Your task to perform on an android device: find snoozed emails in the gmail app Image 0: 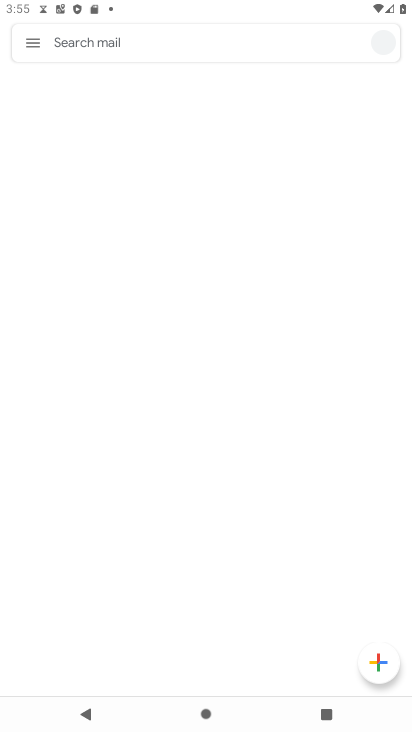
Step 0: drag from (189, 660) to (182, 622)
Your task to perform on an android device: find snoozed emails in the gmail app Image 1: 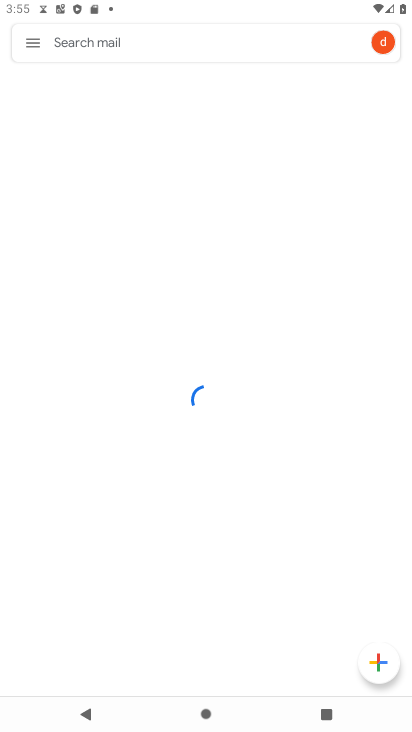
Step 1: press home button
Your task to perform on an android device: find snoozed emails in the gmail app Image 2: 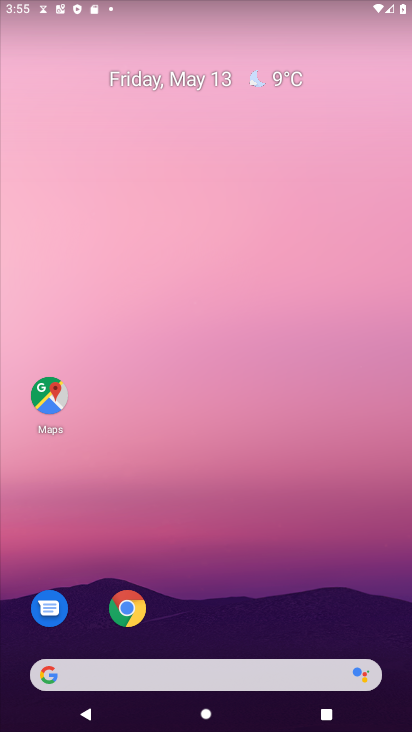
Step 2: drag from (178, 653) to (226, 253)
Your task to perform on an android device: find snoozed emails in the gmail app Image 3: 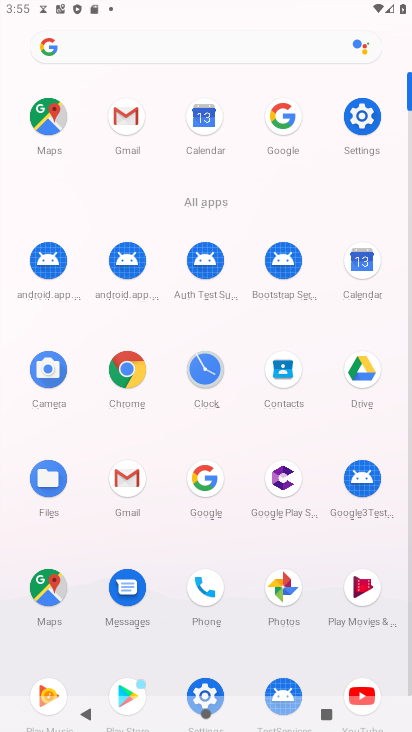
Step 3: click (115, 480)
Your task to perform on an android device: find snoozed emails in the gmail app Image 4: 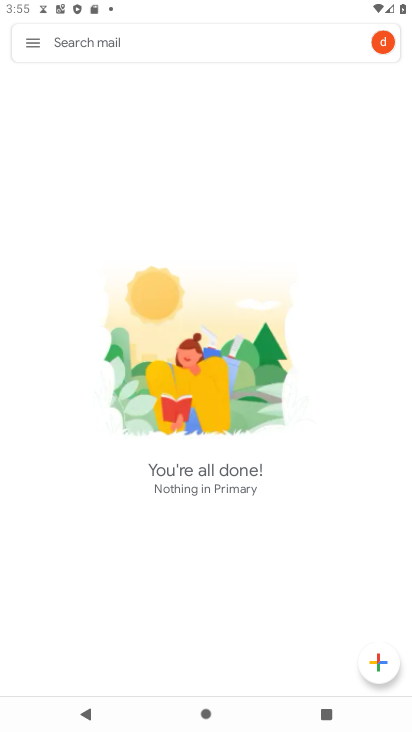
Step 4: click (43, 43)
Your task to perform on an android device: find snoozed emails in the gmail app Image 5: 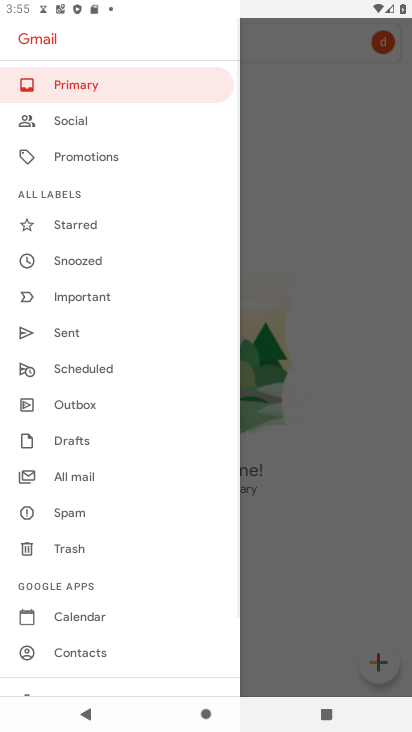
Step 5: click (90, 271)
Your task to perform on an android device: find snoozed emails in the gmail app Image 6: 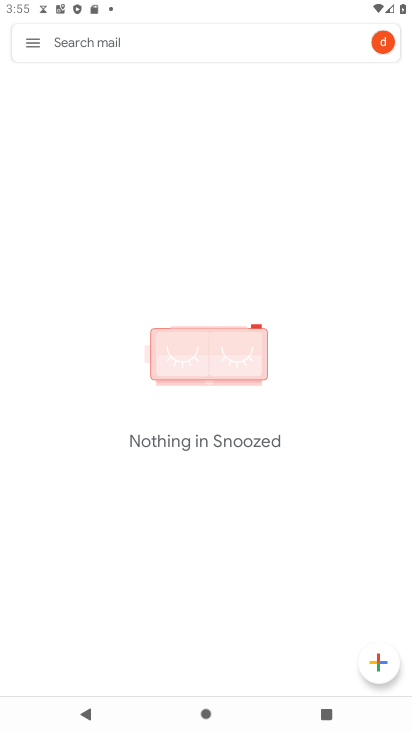
Step 6: task complete